Your task to perform on an android device: Go to eBay Image 0: 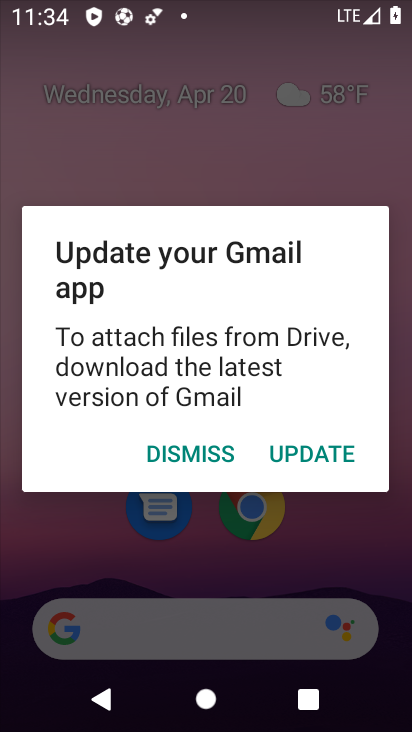
Step 0: press home button
Your task to perform on an android device: Go to eBay Image 1: 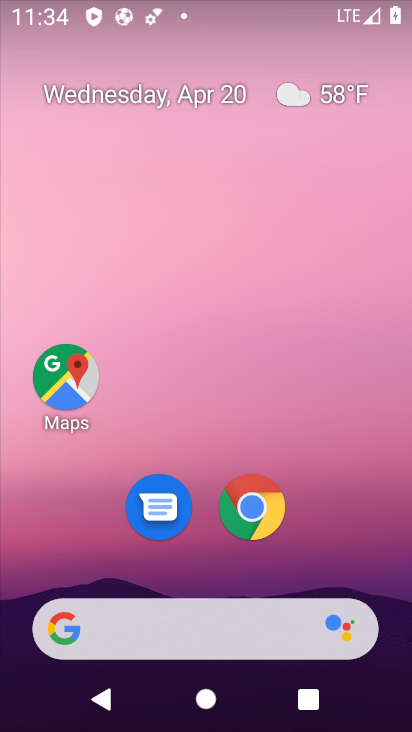
Step 1: drag from (332, 548) to (350, 118)
Your task to perform on an android device: Go to eBay Image 2: 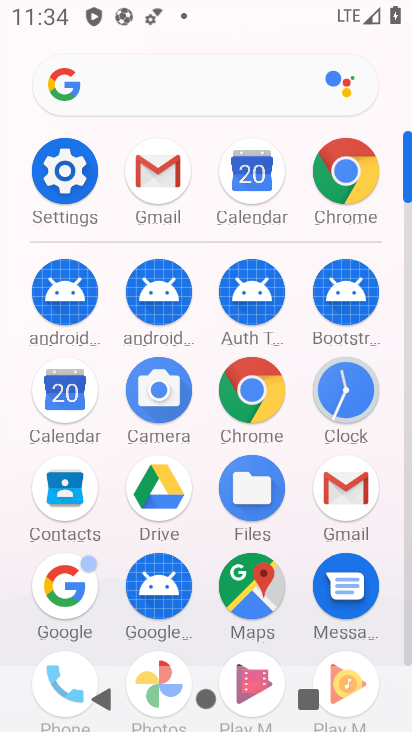
Step 2: click (255, 397)
Your task to perform on an android device: Go to eBay Image 3: 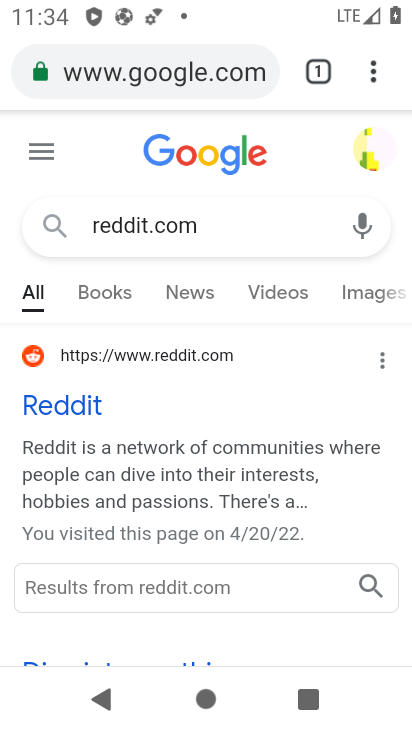
Step 3: click (229, 231)
Your task to perform on an android device: Go to eBay Image 4: 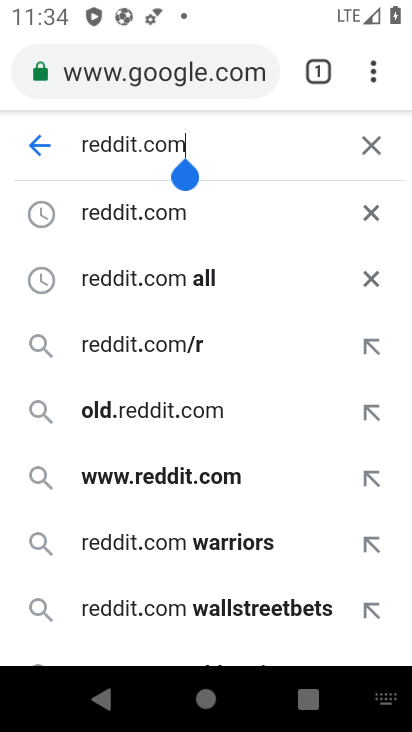
Step 4: click (368, 143)
Your task to perform on an android device: Go to eBay Image 5: 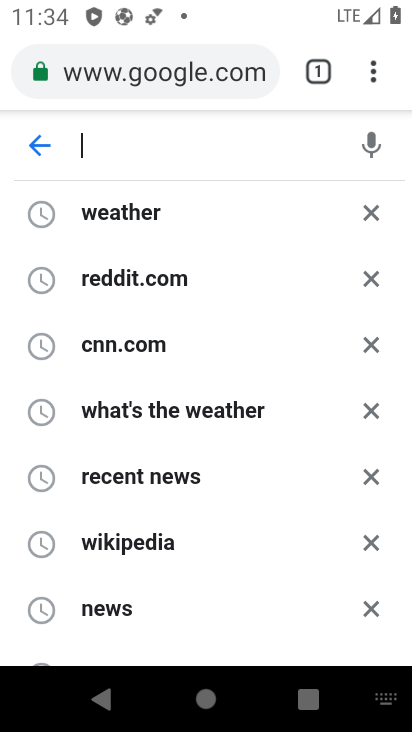
Step 5: type "ebay"
Your task to perform on an android device: Go to eBay Image 6: 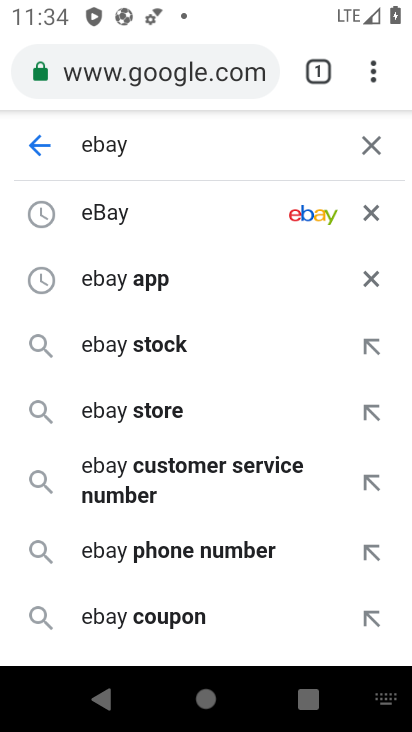
Step 6: click (130, 206)
Your task to perform on an android device: Go to eBay Image 7: 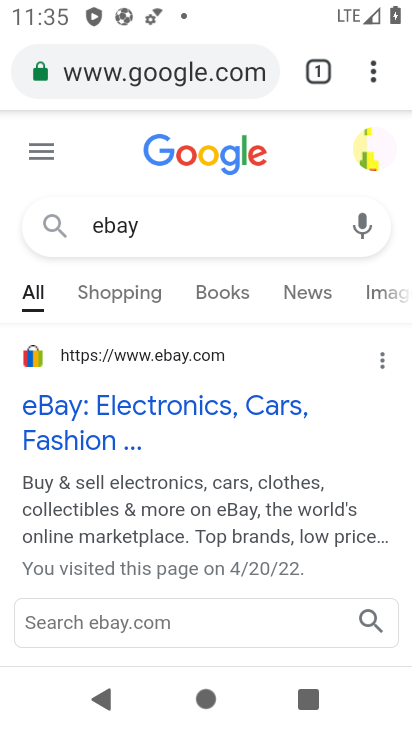
Step 7: task complete